Your task to perform on an android device: Go to Maps Image 0: 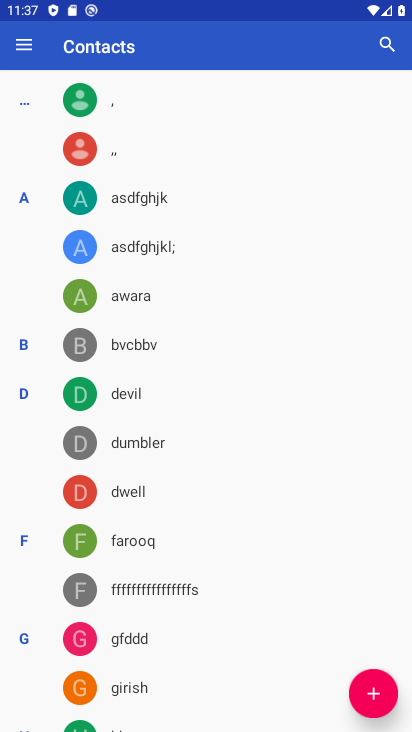
Step 0: press home button
Your task to perform on an android device: Go to Maps Image 1: 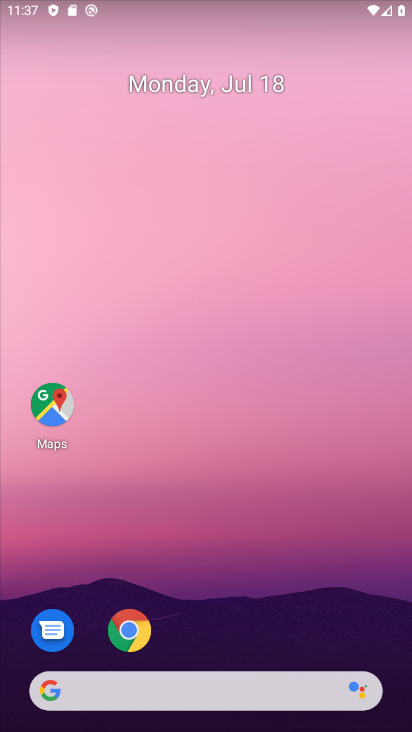
Step 1: click (62, 402)
Your task to perform on an android device: Go to Maps Image 2: 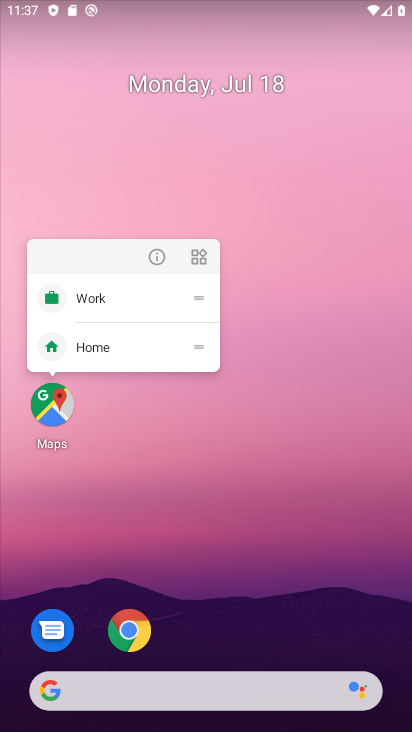
Step 2: click (44, 401)
Your task to perform on an android device: Go to Maps Image 3: 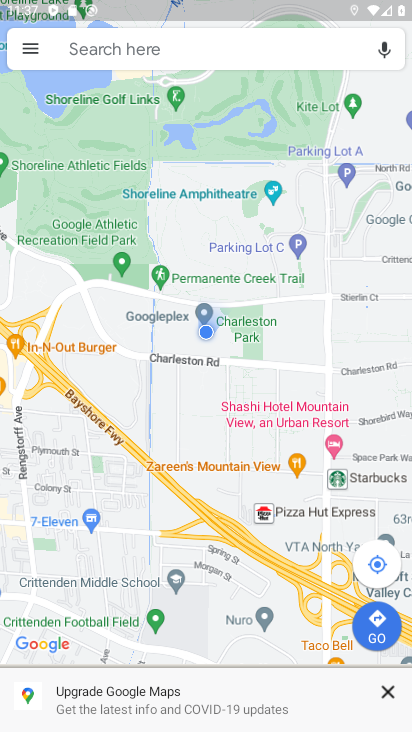
Step 3: task complete